Your task to perform on an android device: Go to calendar. Show me events next week Image 0: 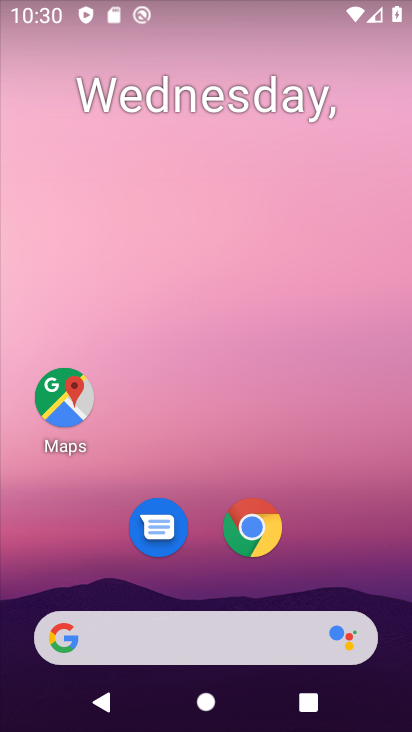
Step 0: drag from (339, 580) to (351, 20)
Your task to perform on an android device: Go to calendar. Show me events next week Image 1: 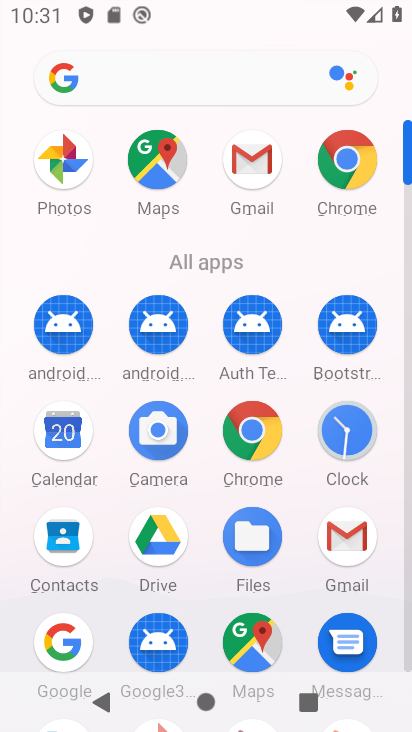
Step 1: click (62, 435)
Your task to perform on an android device: Go to calendar. Show me events next week Image 2: 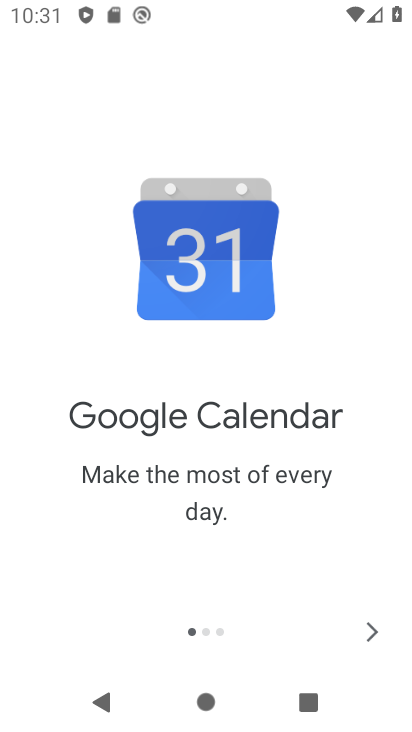
Step 2: click (372, 633)
Your task to perform on an android device: Go to calendar. Show me events next week Image 3: 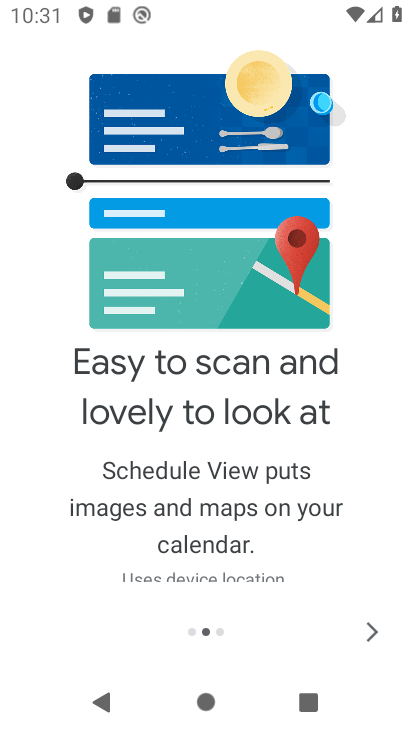
Step 3: click (372, 633)
Your task to perform on an android device: Go to calendar. Show me events next week Image 4: 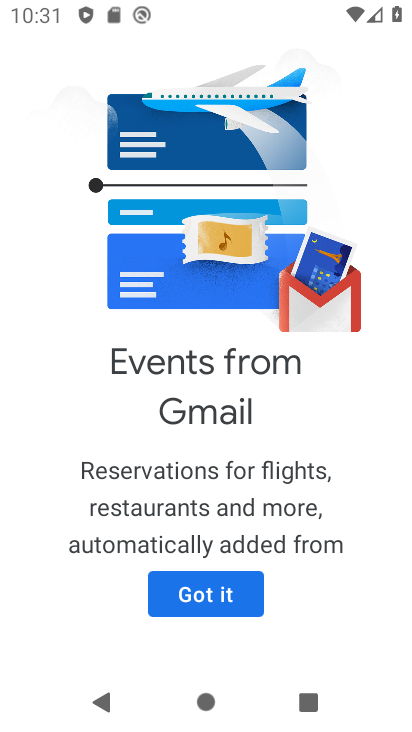
Step 4: click (219, 594)
Your task to perform on an android device: Go to calendar. Show me events next week Image 5: 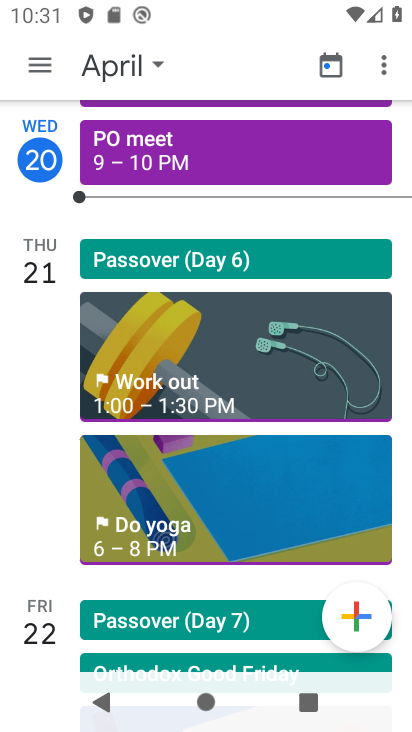
Step 5: click (41, 69)
Your task to perform on an android device: Go to calendar. Show me events next week Image 6: 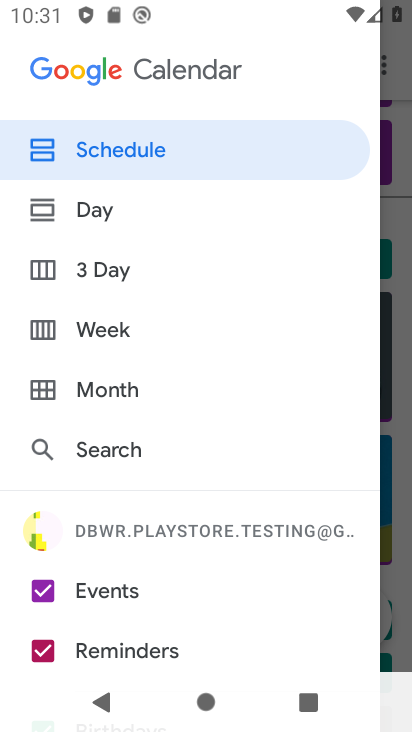
Step 6: click (79, 327)
Your task to perform on an android device: Go to calendar. Show me events next week Image 7: 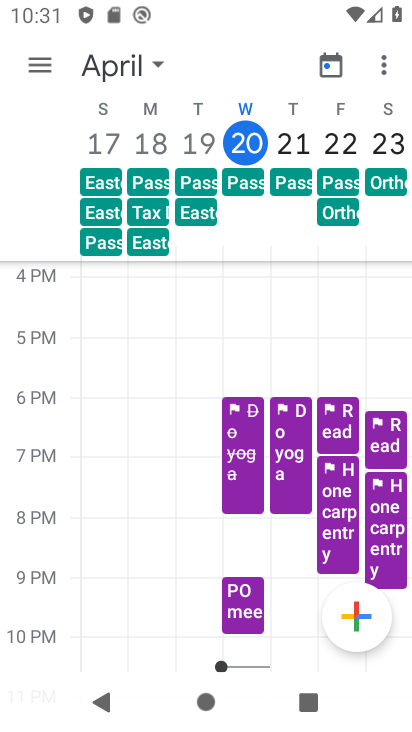
Step 7: drag from (322, 421) to (36, 590)
Your task to perform on an android device: Go to calendar. Show me events next week Image 8: 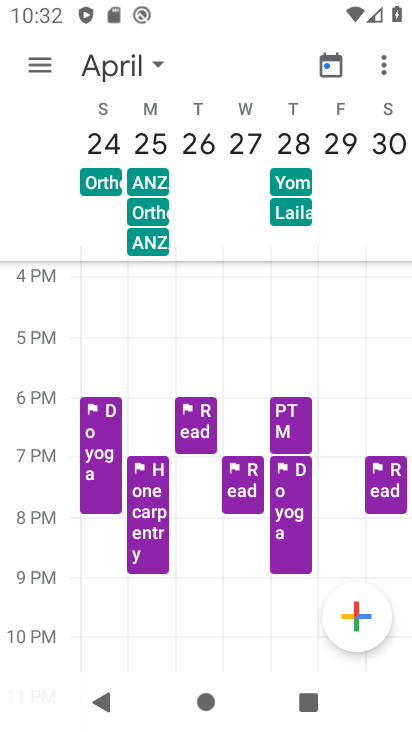
Step 8: drag from (226, 503) to (226, 369)
Your task to perform on an android device: Go to calendar. Show me events next week Image 9: 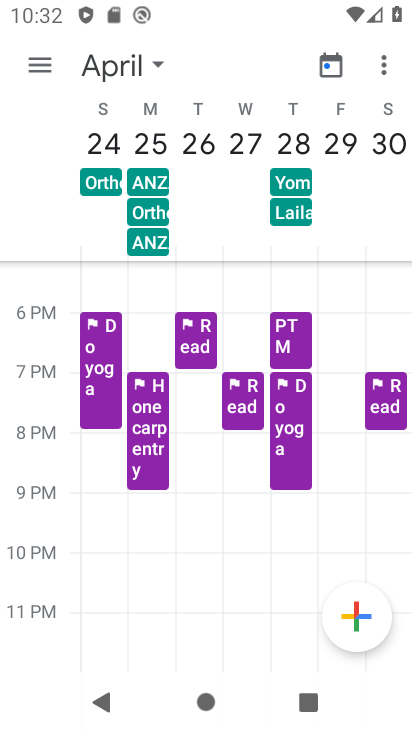
Step 9: click (146, 431)
Your task to perform on an android device: Go to calendar. Show me events next week Image 10: 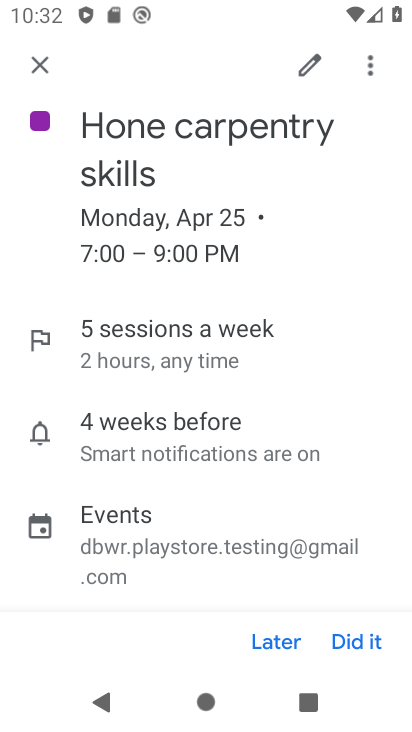
Step 10: task complete